Your task to perform on an android device: toggle sleep mode Image 0: 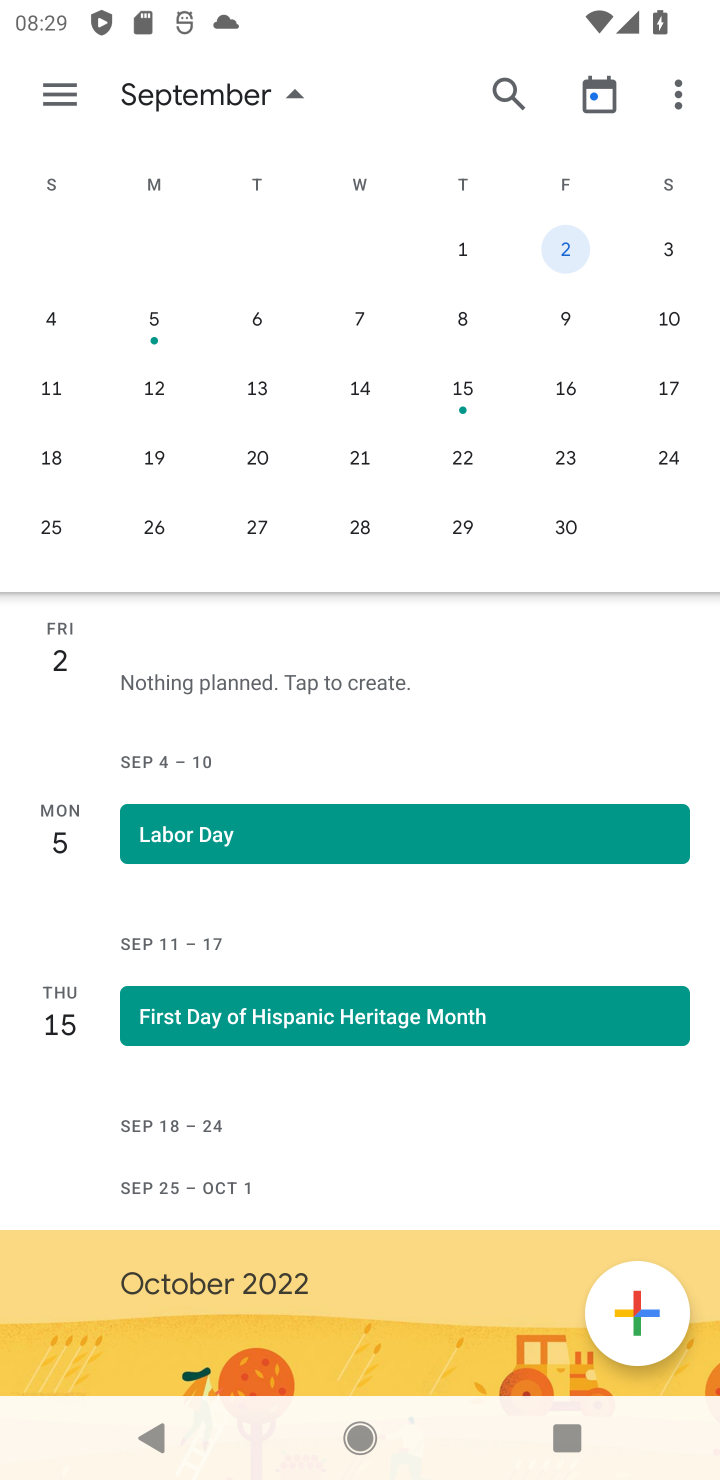
Step 0: press home button
Your task to perform on an android device: toggle sleep mode Image 1: 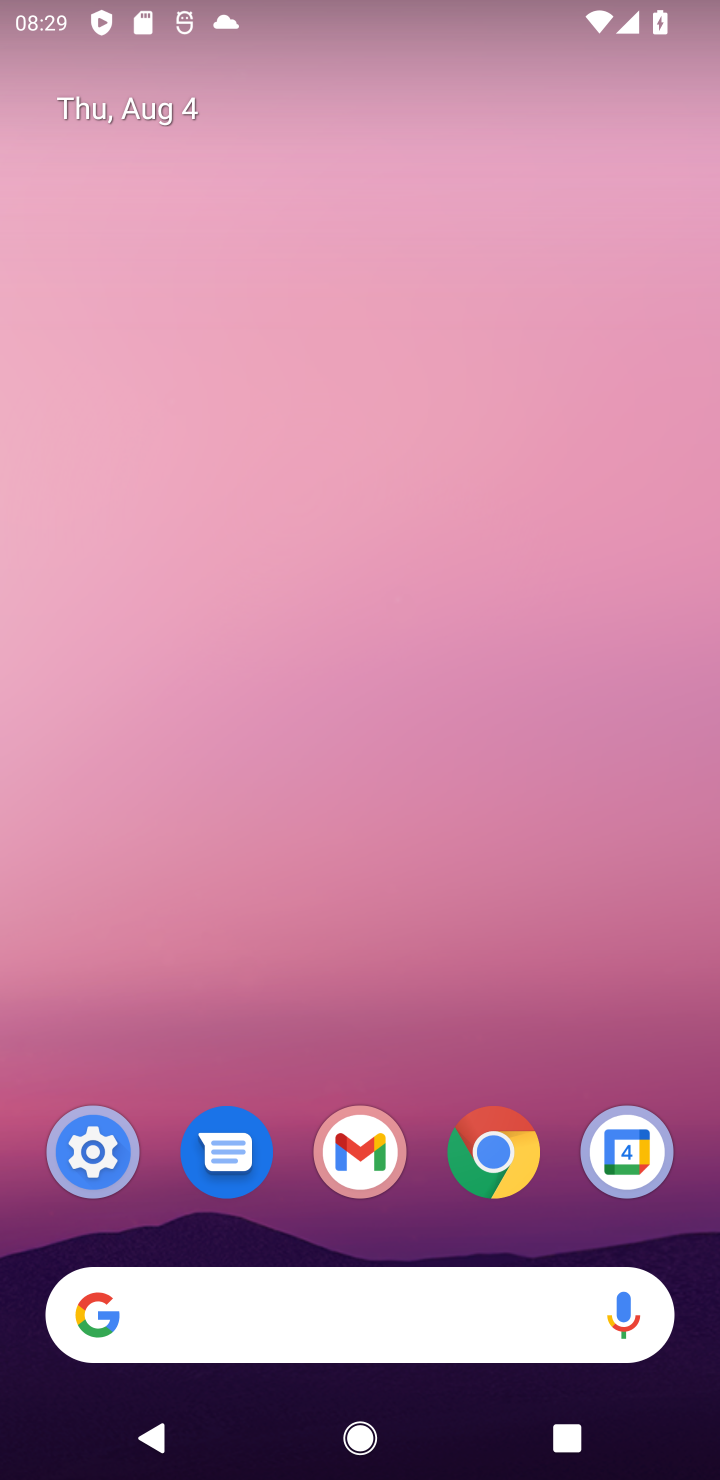
Step 1: drag from (586, 259) to (643, 129)
Your task to perform on an android device: toggle sleep mode Image 2: 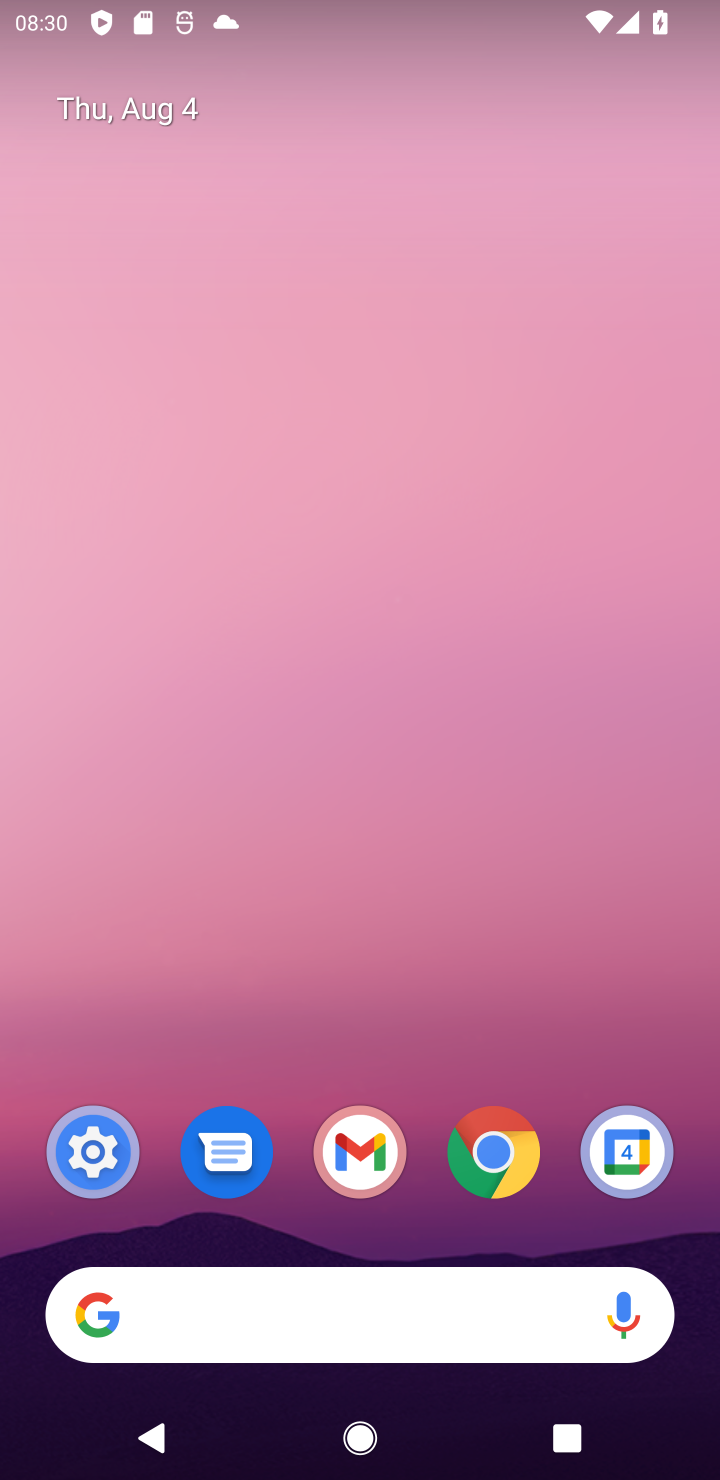
Step 2: drag from (12, 1106) to (366, 191)
Your task to perform on an android device: toggle sleep mode Image 3: 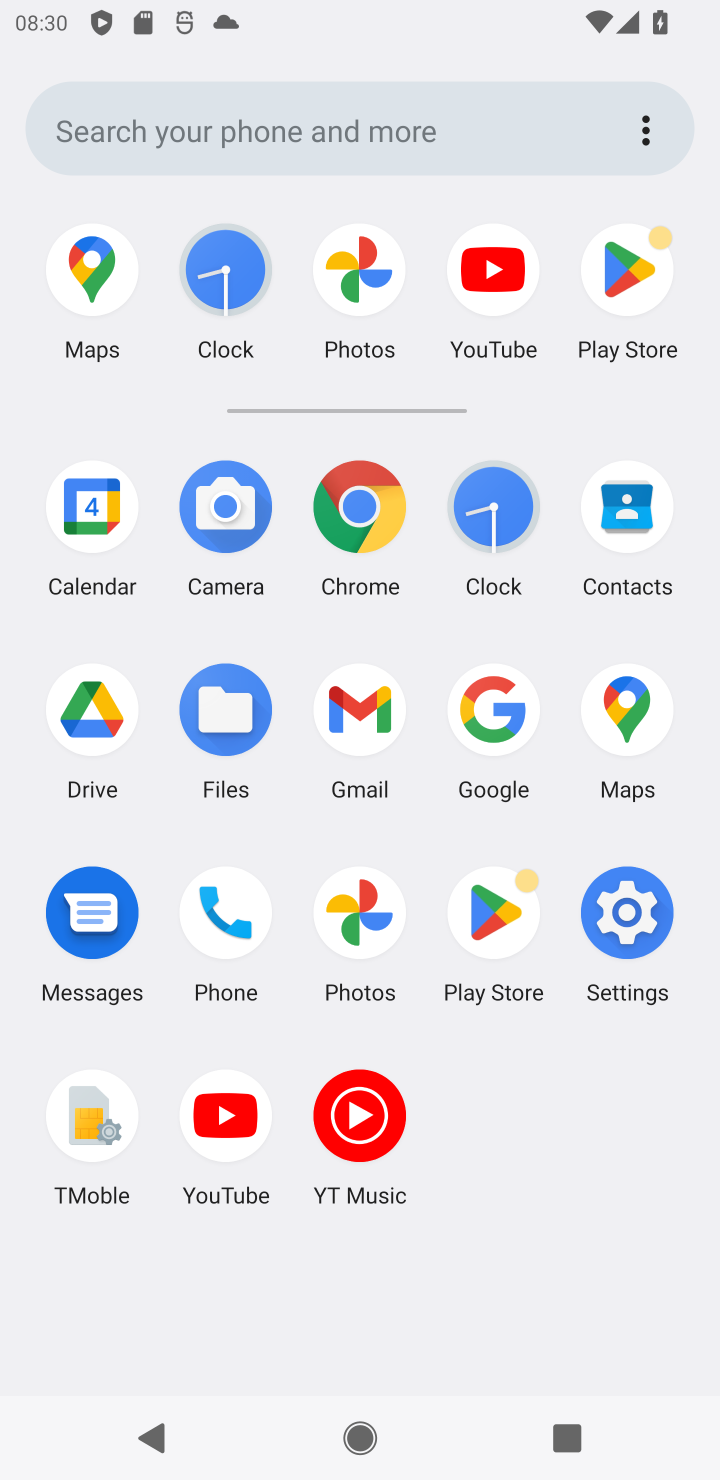
Step 3: click (639, 910)
Your task to perform on an android device: toggle sleep mode Image 4: 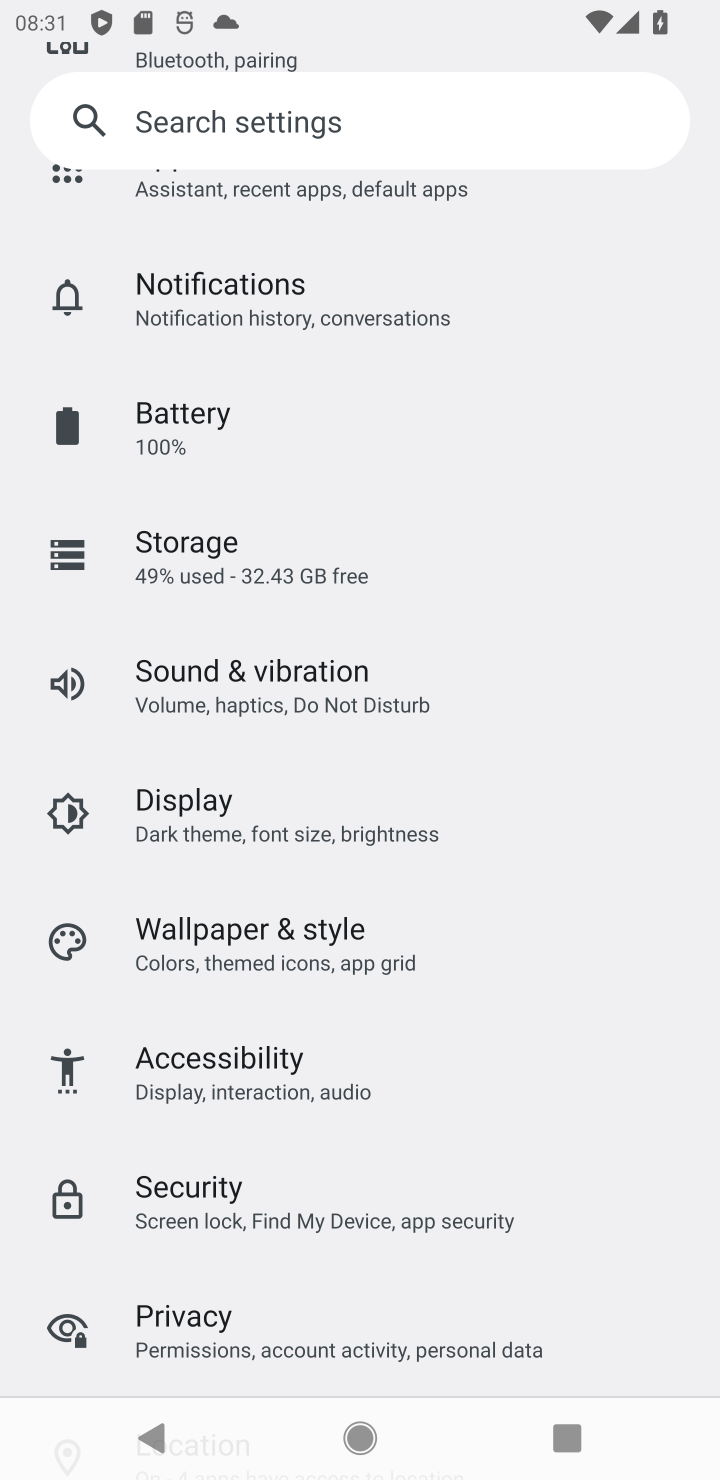
Step 4: task complete